Your task to perform on an android device: add a contact in the contacts app Image 0: 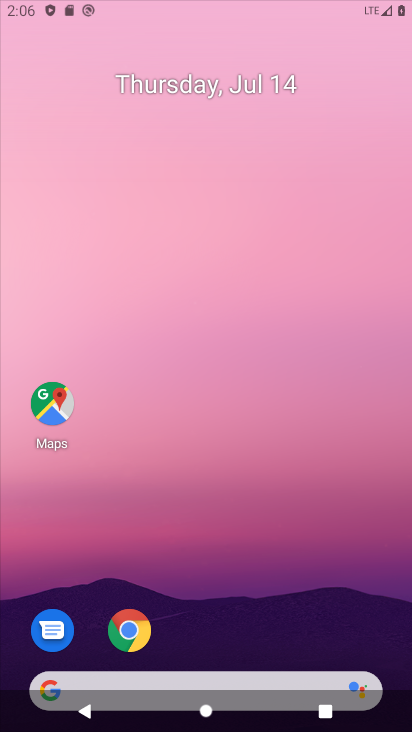
Step 0: press home button
Your task to perform on an android device: add a contact in the contacts app Image 1: 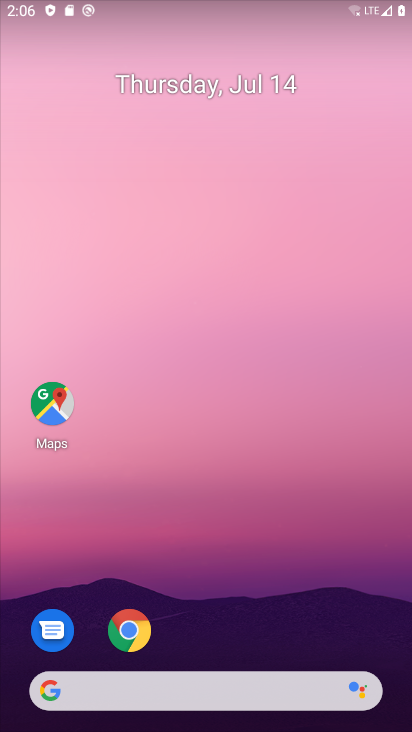
Step 1: drag from (225, 645) to (245, 5)
Your task to perform on an android device: add a contact in the contacts app Image 2: 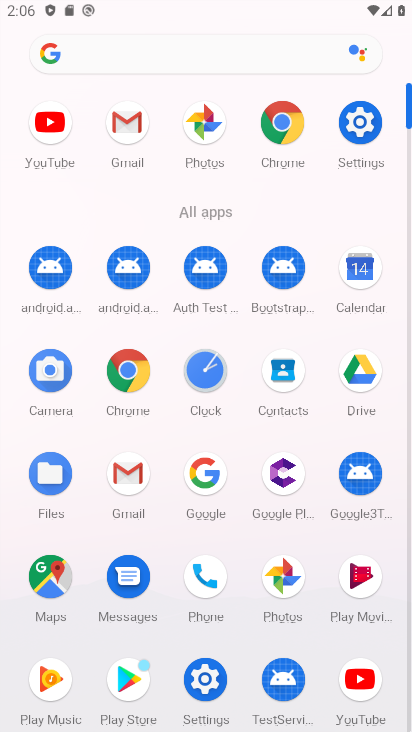
Step 2: click (281, 366)
Your task to perform on an android device: add a contact in the contacts app Image 3: 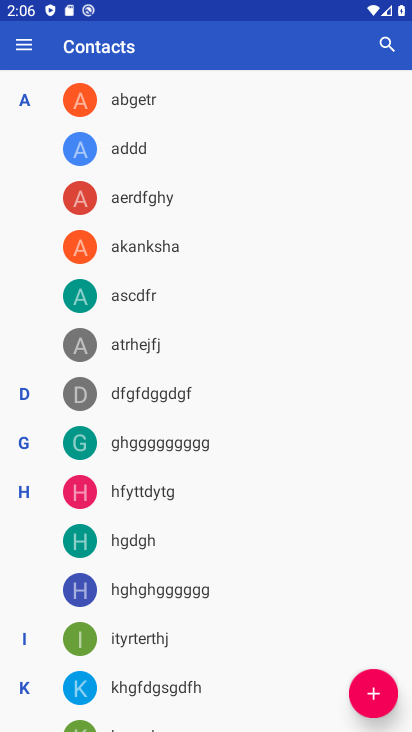
Step 3: click (372, 693)
Your task to perform on an android device: add a contact in the contacts app Image 4: 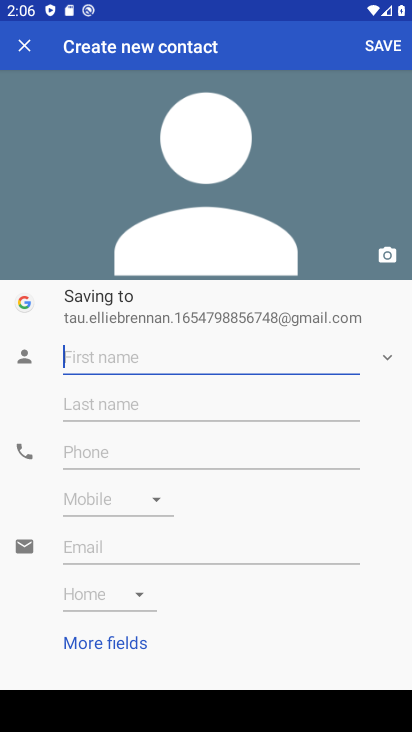
Step 4: type "hgdgfdyt"
Your task to perform on an android device: add a contact in the contacts app Image 5: 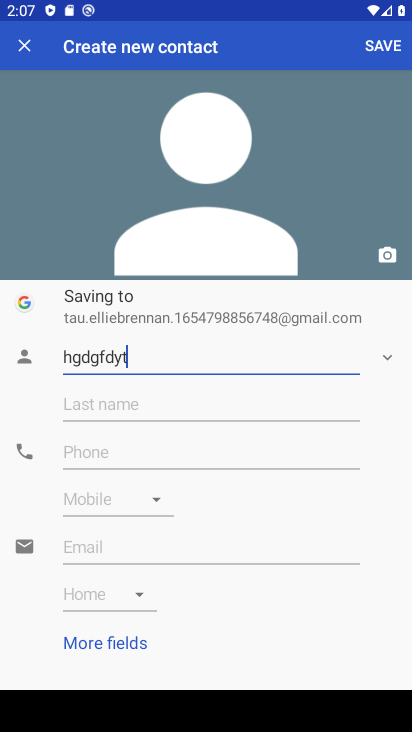
Step 5: click (384, 53)
Your task to perform on an android device: add a contact in the contacts app Image 6: 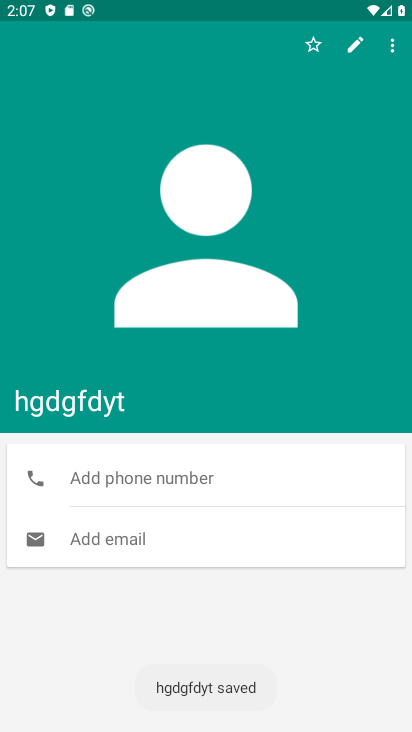
Step 6: task complete